Your task to perform on an android device: toggle javascript in the chrome app Image 0: 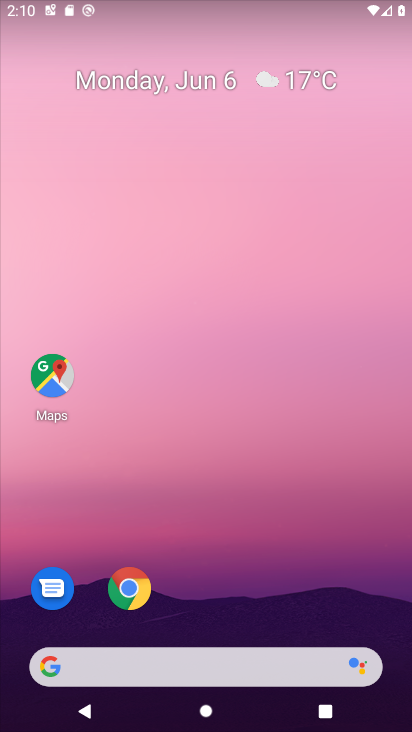
Step 0: click (131, 582)
Your task to perform on an android device: toggle javascript in the chrome app Image 1: 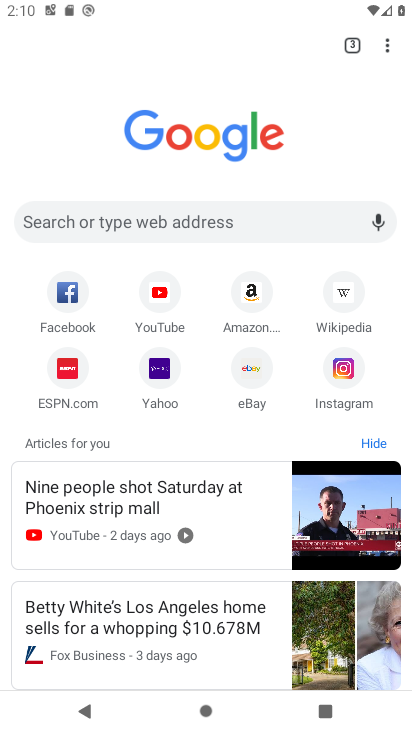
Step 1: click (136, 577)
Your task to perform on an android device: toggle javascript in the chrome app Image 2: 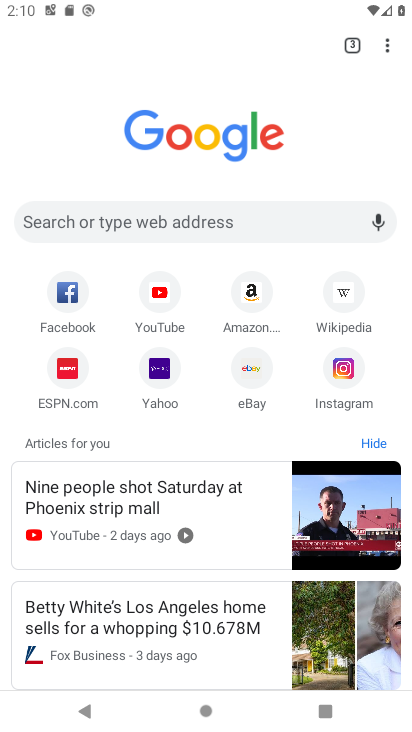
Step 2: click (385, 45)
Your task to perform on an android device: toggle javascript in the chrome app Image 3: 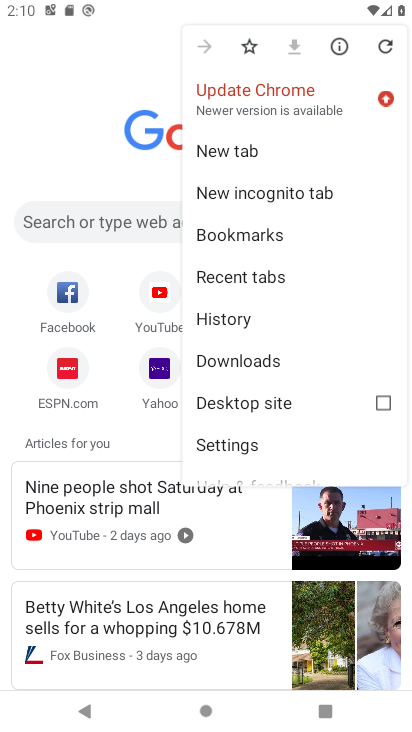
Step 3: click (229, 449)
Your task to perform on an android device: toggle javascript in the chrome app Image 4: 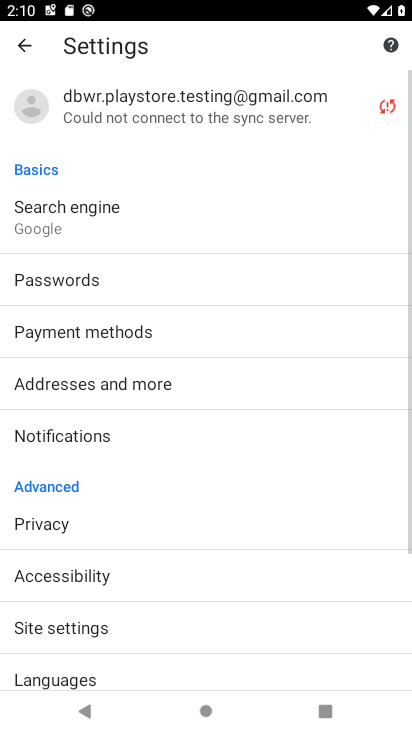
Step 4: click (103, 632)
Your task to perform on an android device: toggle javascript in the chrome app Image 5: 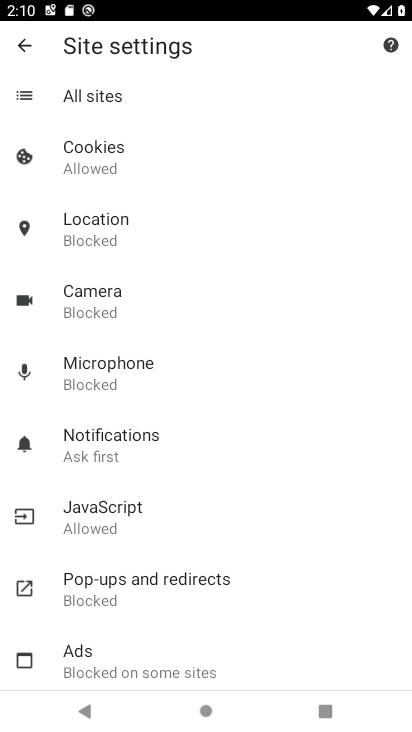
Step 5: click (134, 519)
Your task to perform on an android device: toggle javascript in the chrome app Image 6: 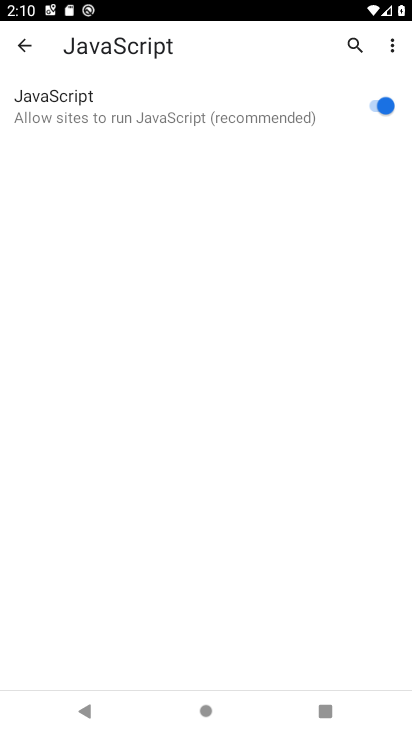
Step 6: click (391, 104)
Your task to perform on an android device: toggle javascript in the chrome app Image 7: 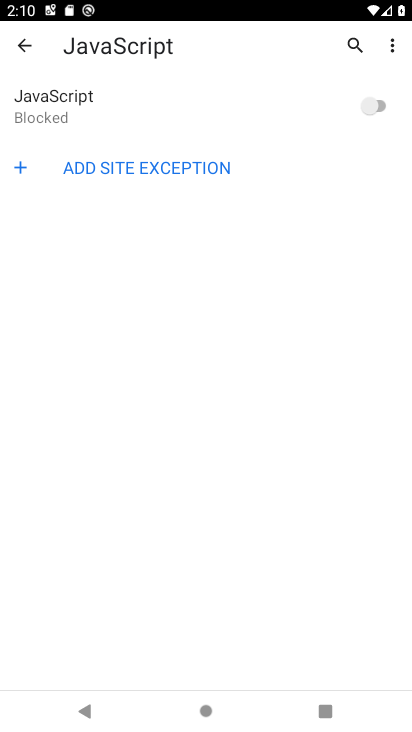
Step 7: task complete